Your task to perform on an android device: Add usb-c to usb-b to the cart on walmart.com Image 0: 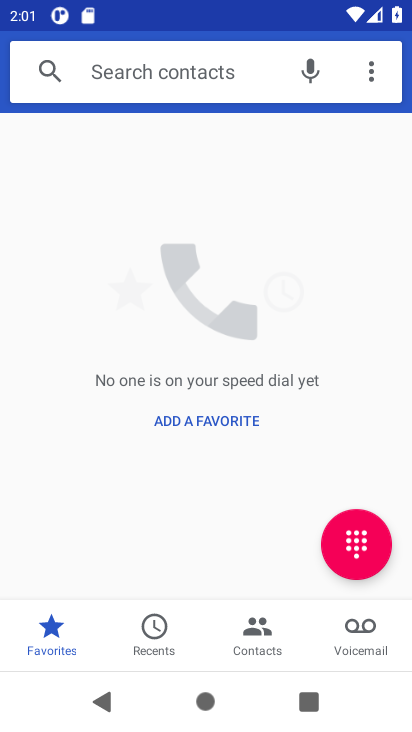
Step 0: press home button
Your task to perform on an android device: Add usb-c to usb-b to the cart on walmart.com Image 1: 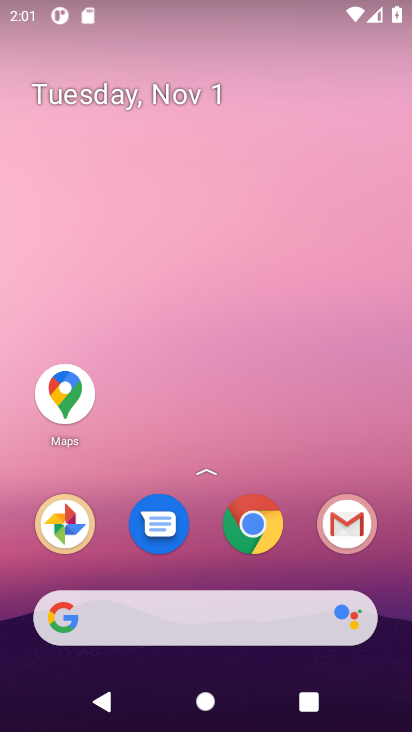
Step 1: click (252, 525)
Your task to perform on an android device: Add usb-c to usb-b to the cart on walmart.com Image 2: 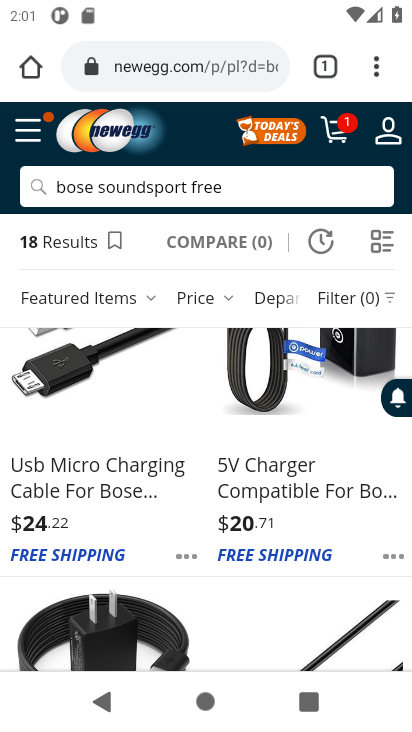
Step 2: click (182, 45)
Your task to perform on an android device: Add usb-c to usb-b to the cart on walmart.com Image 3: 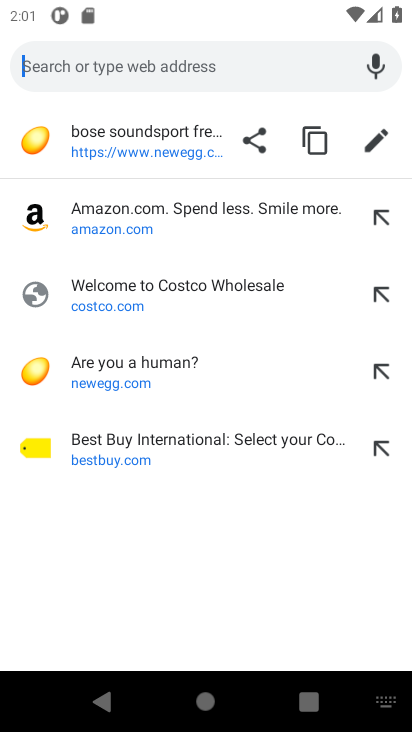
Step 3: type "walmart.com"
Your task to perform on an android device: Add usb-c to usb-b to the cart on walmart.com Image 4: 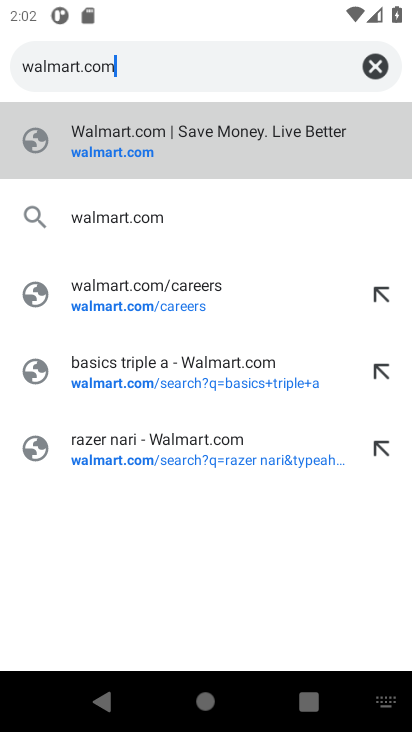
Step 4: click (112, 131)
Your task to perform on an android device: Add usb-c to usb-b to the cart on walmart.com Image 5: 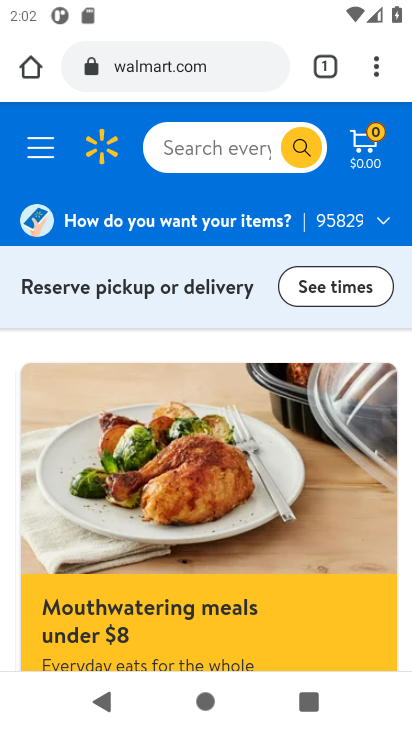
Step 5: click (194, 149)
Your task to perform on an android device: Add usb-c to usb-b to the cart on walmart.com Image 6: 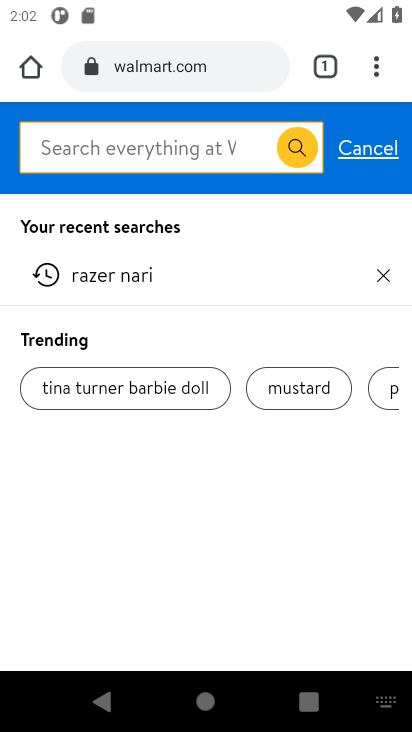
Step 6: type "usb-c to usb-b"
Your task to perform on an android device: Add usb-c to usb-b to the cart on walmart.com Image 7: 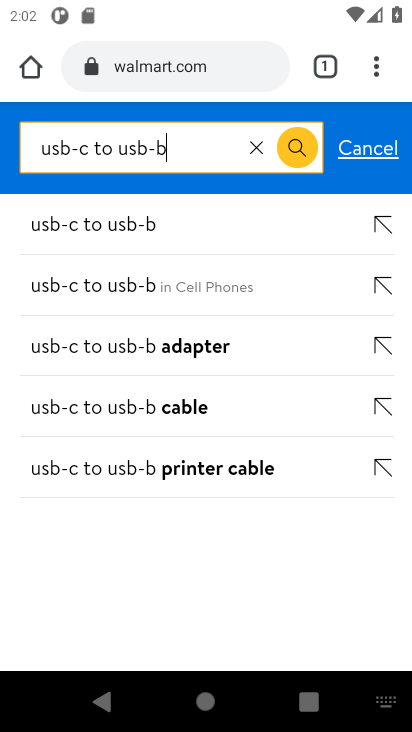
Step 7: click (68, 217)
Your task to perform on an android device: Add usb-c to usb-b to the cart on walmart.com Image 8: 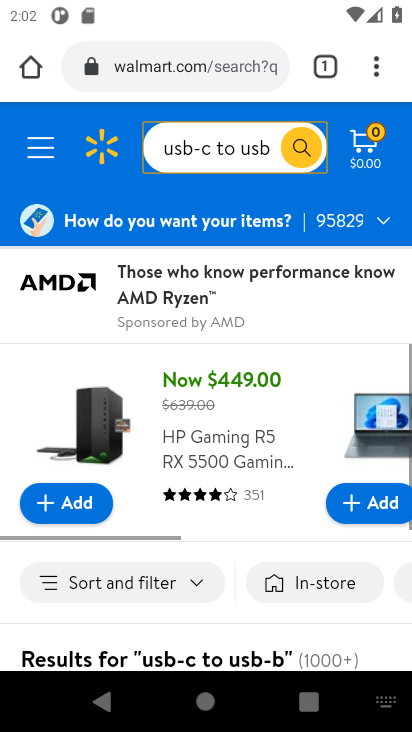
Step 8: drag from (291, 531) to (277, 325)
Your task to perform on an android device: Add usb-c to usb-b to the cart on walmart.com Image 9: 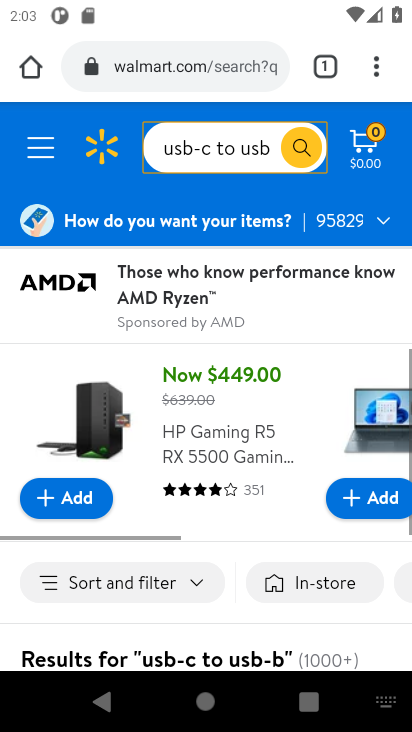
Step 9: drag from (288, 541) to (251, 293)
Your task to perform on an android device: Add usb-c to usb-b to the cart on walmart.com Image 10: 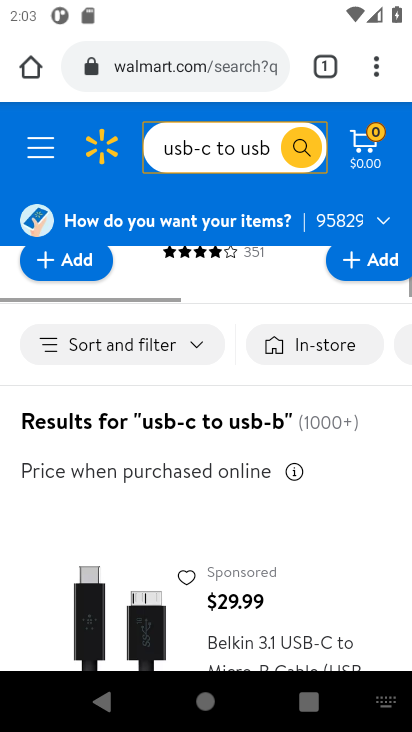
Step 10: drag from (215, 315) to (256, 604)
Your task to perform on an android device: Add usb-c to usb-b to the cart on walmart.com Image 11: 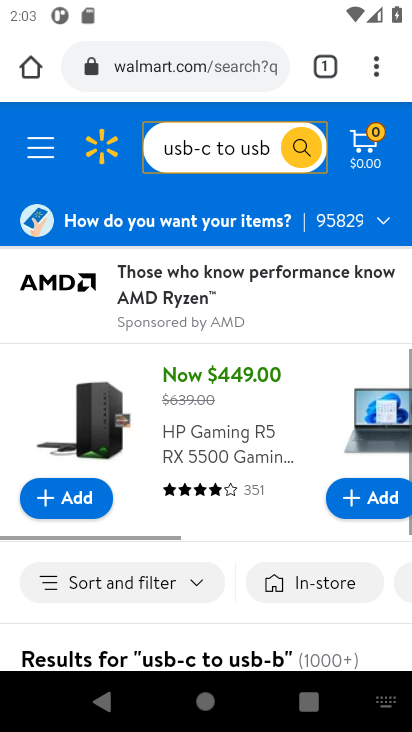
Step 11: drag from (213, 516) to (203, 179)
Your task to perform on an android device: Add usb-c to usb-b to the cart on walmart.com Image 12: 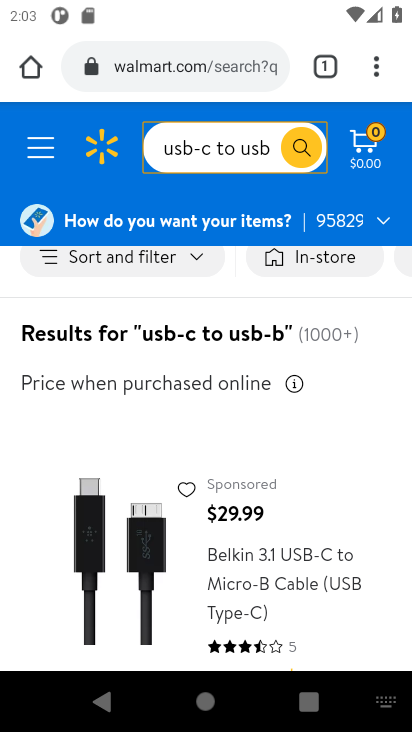
Step 12: drag from (181, 591) to (225, 388)
Your task to perform on an android device: Add usb-c to usb-b to the cart on walmart.com Image 13: 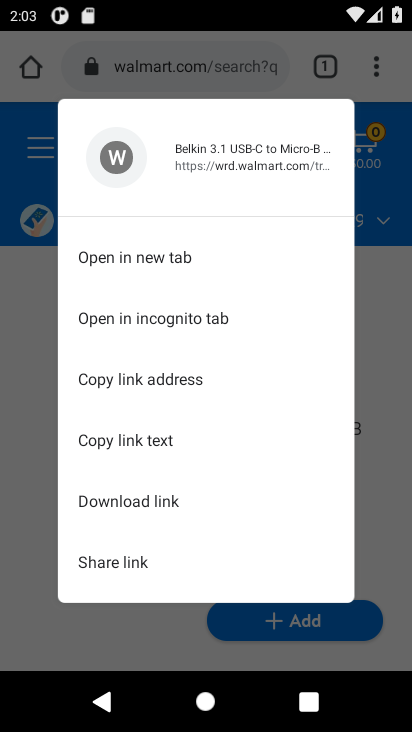
Step 13: click (131, 620)
Your task to perform on an android device: Add usb-c to usb-b to the cart on walmart.com Image 14: 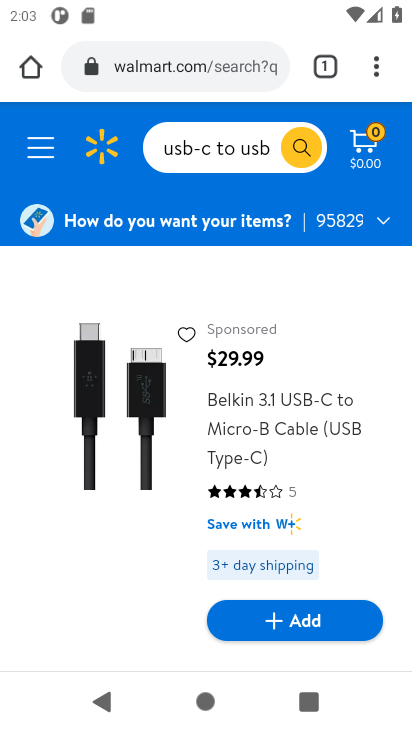
Step 14: drag from (177, 528) to (181, 343)
Your task to perform on an android device: Add usb-c to usb-b to the cart on walmart.com Image 15: 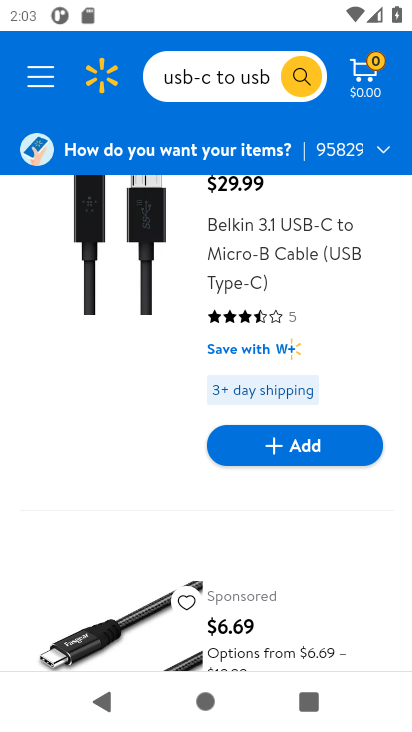
Step 15: click (276, 444)
Your task to perform on an android device: Add usb-c to usb-b to the cart on walmart.com Image 16: 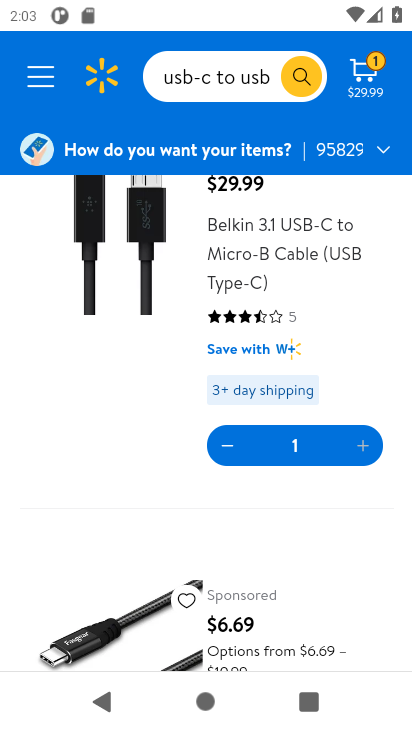
Step 16: task complete